Your task to perform on an android device: Open notification settings Image 0: 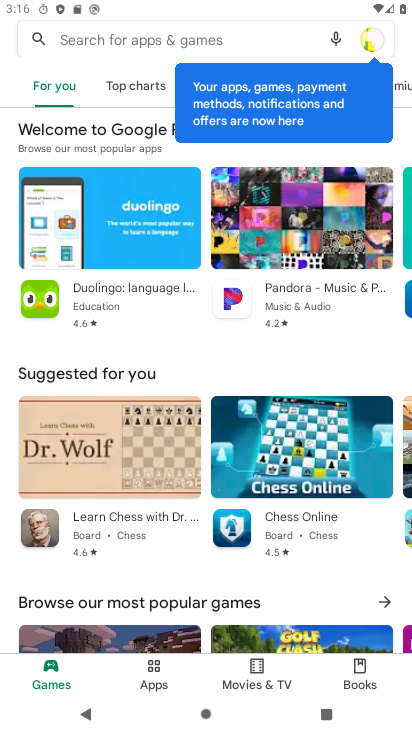
Step 0: press home button
Your task to perform on an android device: Open notification settings Image 1: 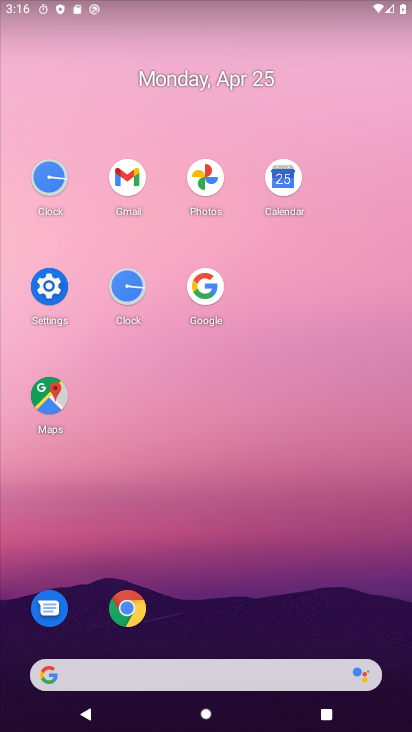
Step 1: click (46, 294)
Your task to perform on an android device: Open notification settings Image 2: 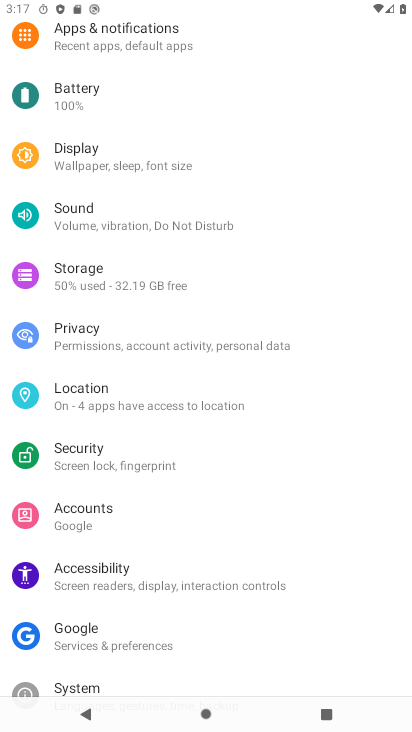
Step 2: click (148, 45)
Your task to perform on an android device: Open notification settings Image 3: 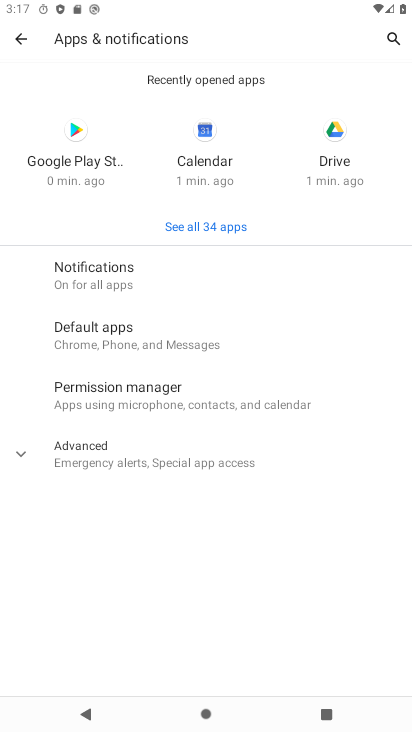
Step 3: task complete